Your task to perform on an android device: Do I have any events tomorrow? Image 0: 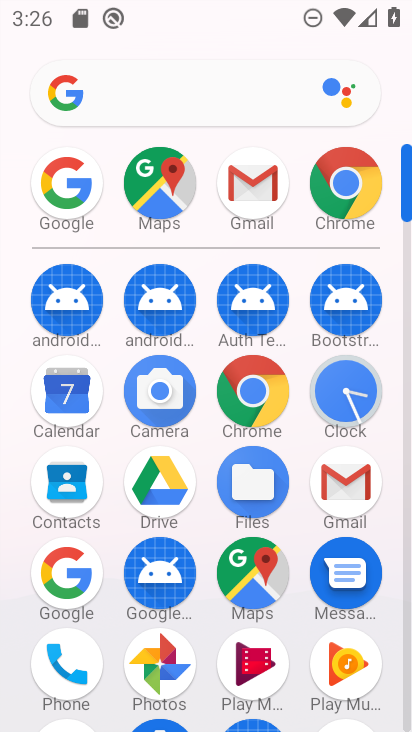
Step 0: click (77, 391)
Your task to perform on an android device: Do I have any events tomorrow? Image 1: 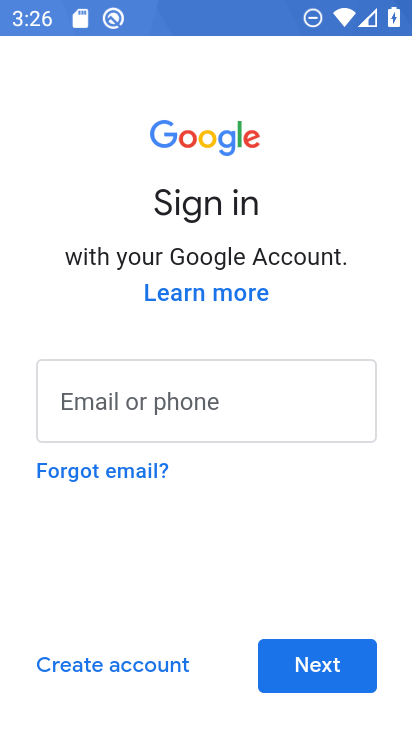
Step 1: task complete